Your task to perform on an android device: turn on javascript in the chrome app Image 0: 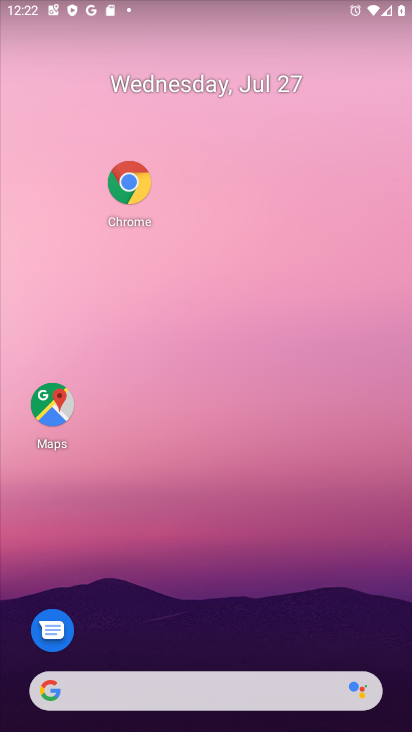
Step 0: click (135, 174)
Your task to perform on an android device: turn on javascript in the chrome app Image 1: 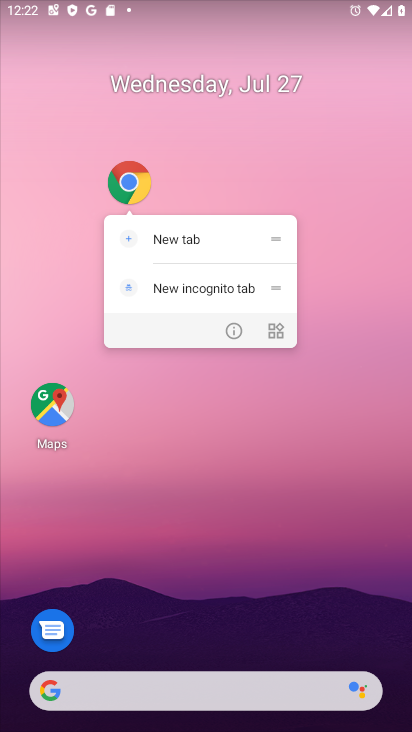
Step 1: click (135, 174)
Your task to perform on an android device: turn on javascript in the chrome app Image 2: 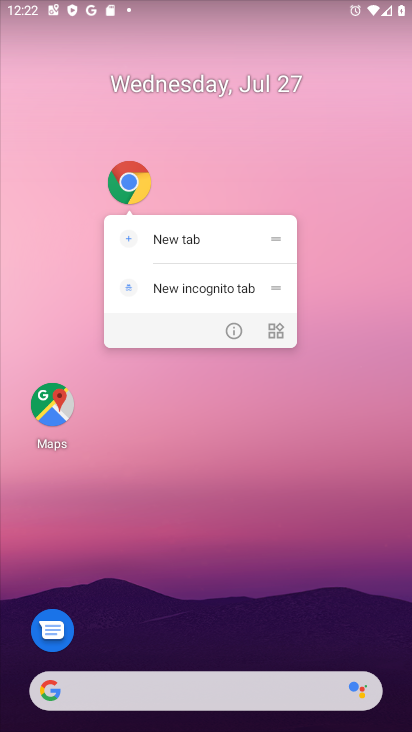
Step 2: click (135, 174)
Your task to perform on an android device: turn on javascript in the chrome app Image 3: 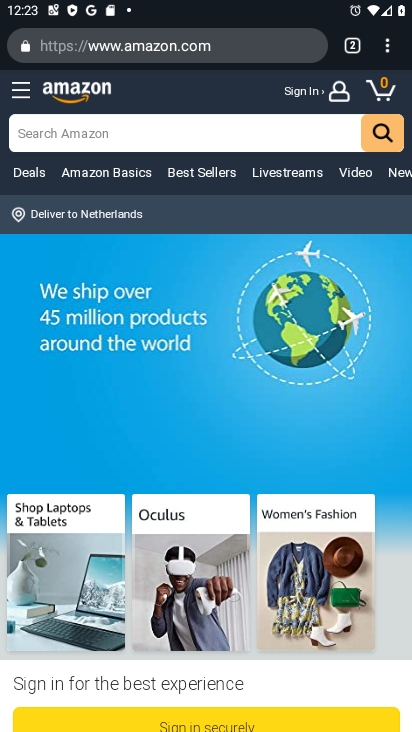
Step 3: click (396, 51)
Your task to perform on an android device: turn on javascript in the chrome app Image 4: 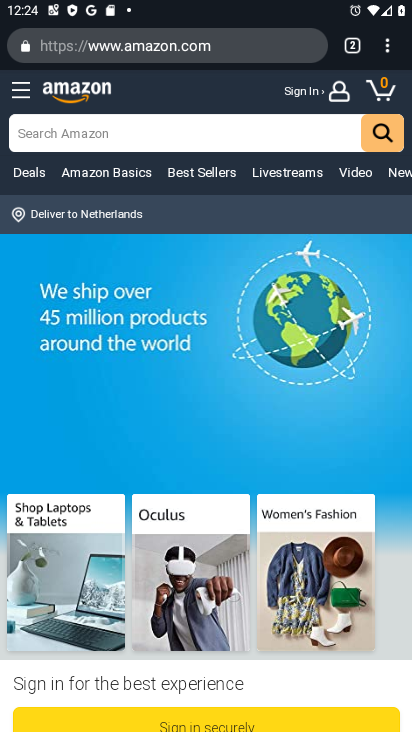
Step 4: click (382, 40)
Your task to perform on an android device: turn on javascript in the chrome app Image 5: 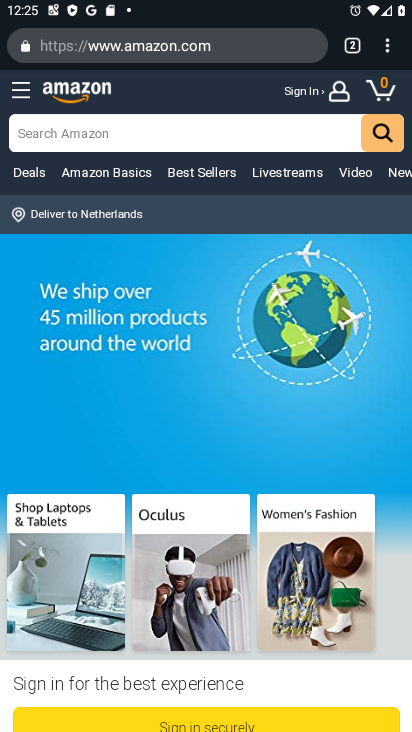
Step 5: click (382, 40)
Your task to perform on an android device: turn on javascript in the chrome app Image 6: 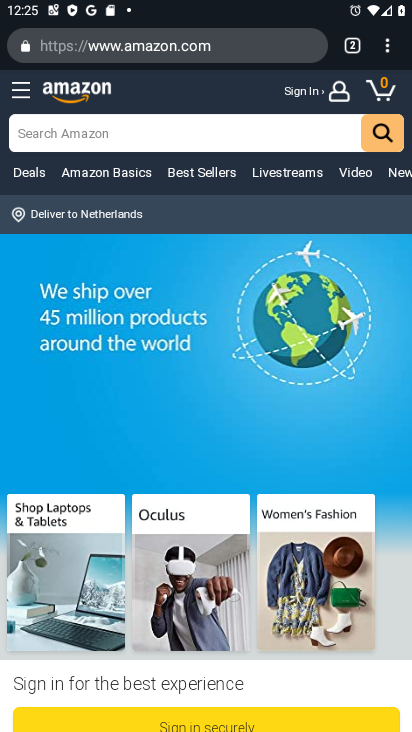
Step 6: click (389, 47)
Your task to perform on an android device: turn on javascript in the chrome app Image 7: 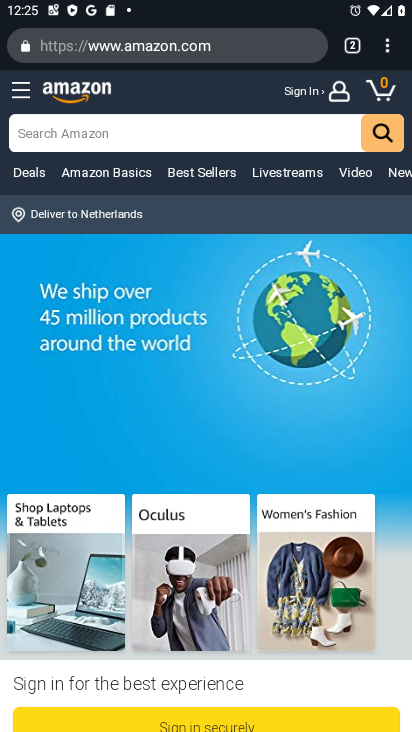
Step 7: click (392, 39)
Your task to perform on an android device: turn on javascript in the chrome app Image 8: 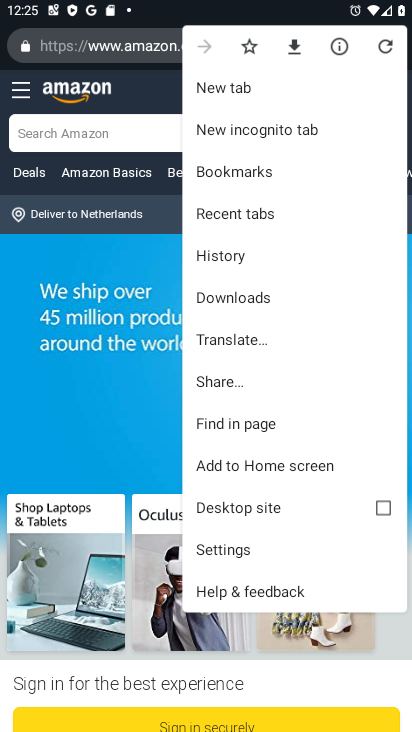
Step 8: click (263, 547)
Your task to perform on an android device: turn on javascript in the chrome app Image 9: 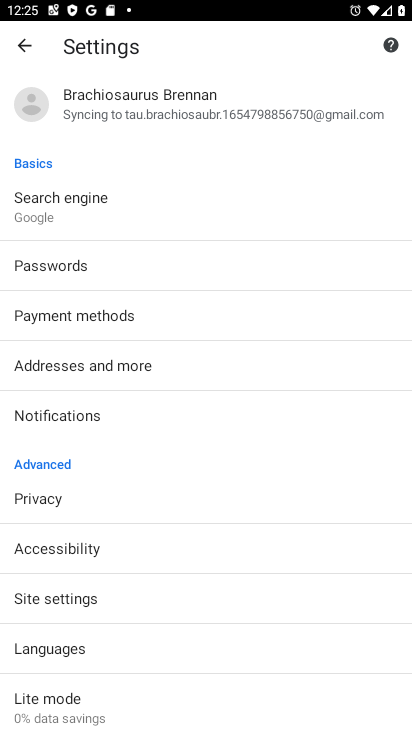
Step 9: click (81, 594)
Your task to perform on an android device: turn on javascript in the chrome app Image 10: 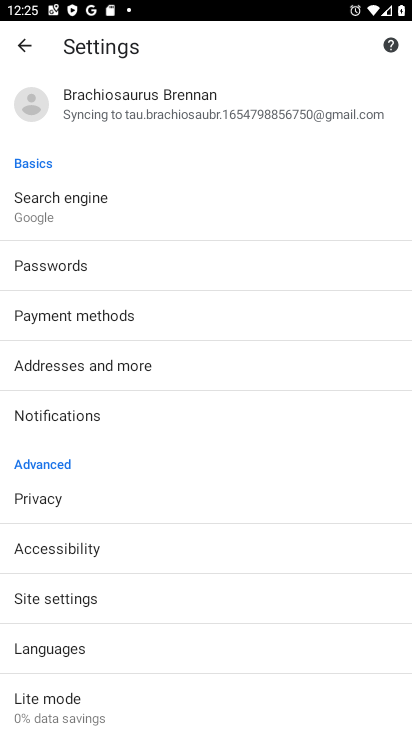
Step 10: click (81, 594)
Your task to perform on an android device: turn on javascript in the chrome app Image 11: 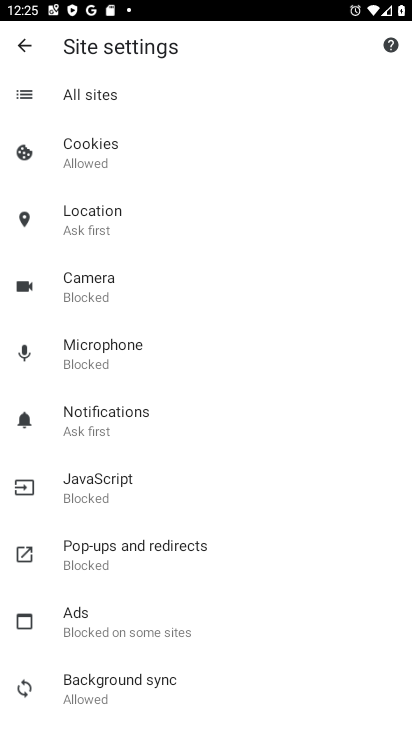
Step 11: click (131, 493)
Your task to perform on an android device: turn on javascript in the chrome app Image 12: 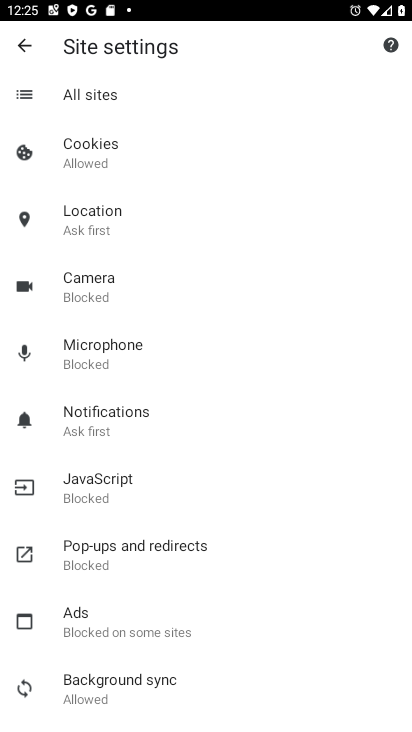
Step 12: click (131, 493)
Your task to perform on an android device: turn on javascript in the chrome app Image 13: 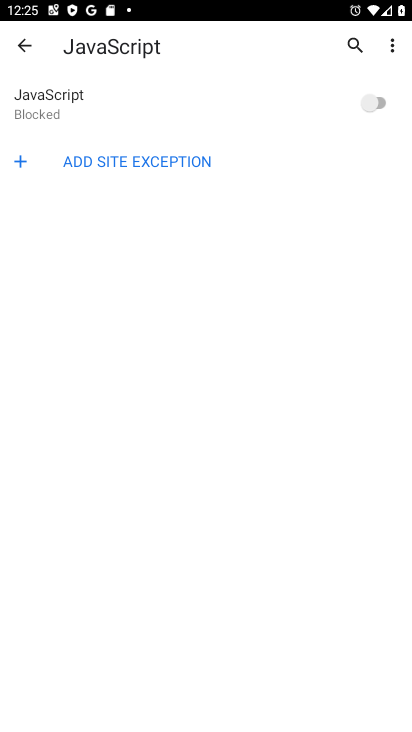
Step 13: click (369, 103)
Your task to perform on an android device: turn on javascript in the chrome app Image 14: 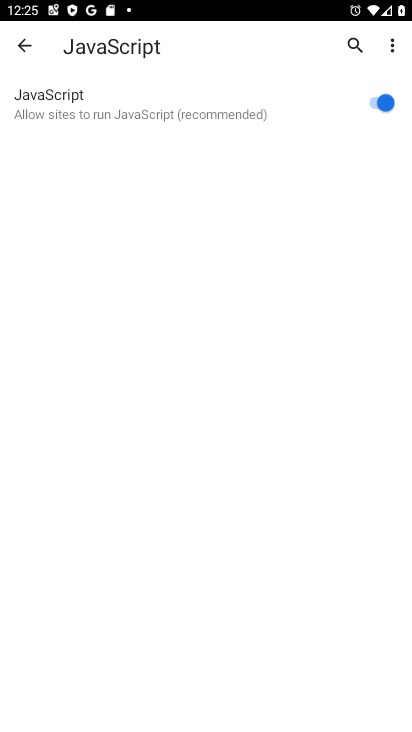
Step 14: task complete